Your task to perform on an android device: turn off airplane mode Image 0: 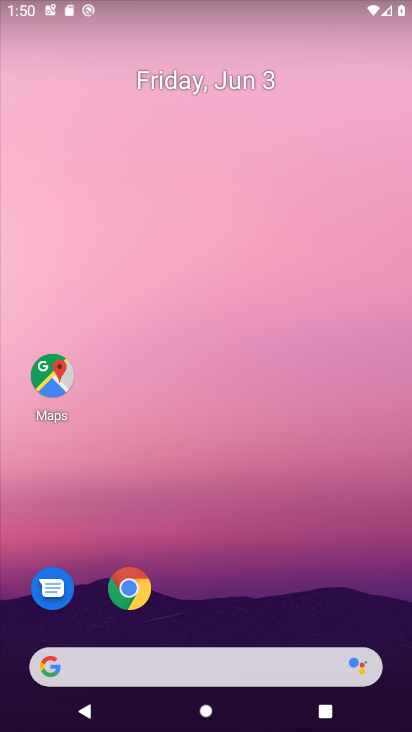
Step 0: drag from (235, 616) to (231, 16)
Your task to perform on an android device: turn off airplane mode Image 1: 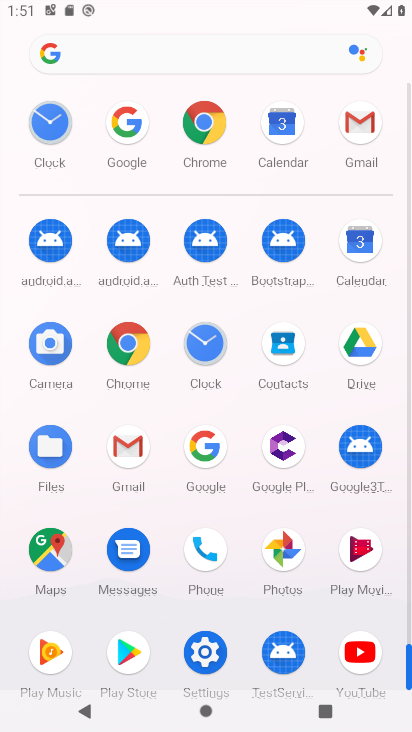
Step 1: click (207, 656)
Your task to perform on an android device: turn off airplane mode Image 2: 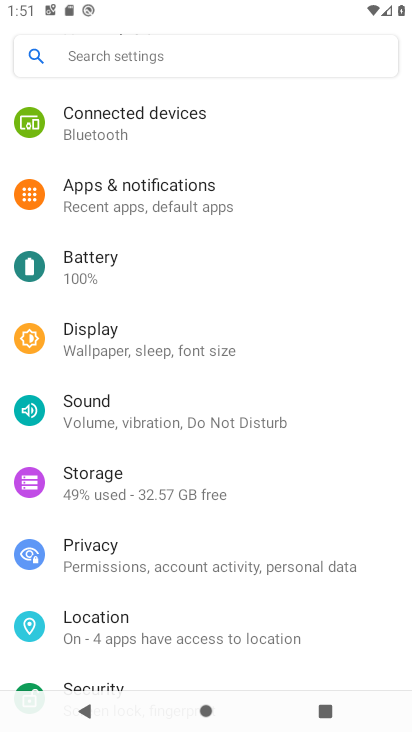
Step 2: drag from (167, 277) to (181, 605)
Your task to perform on an android device: turn off airplane mode Image 3: 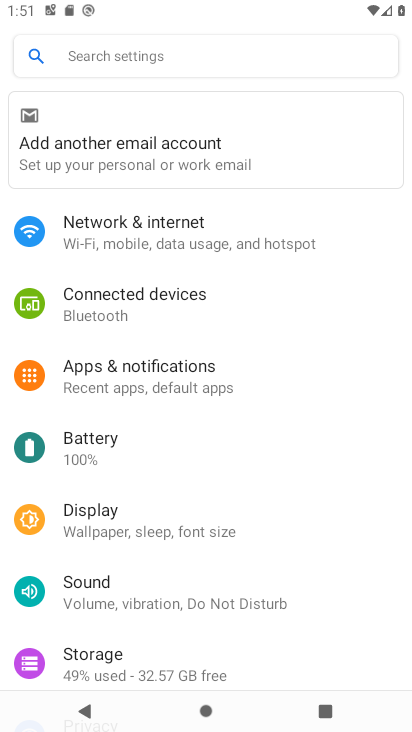
Step 3: click (214, 233)
Your task to perform on an android device: turn off airplane mode Image 4: 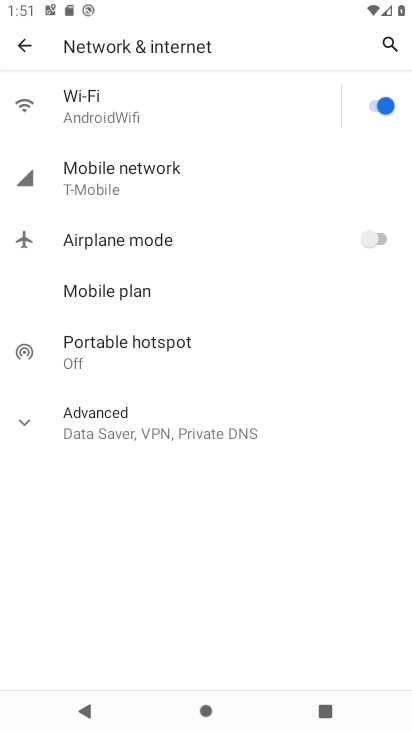
Step 4: task complete